Your task to perform on an android device: Open the phone app and click the voicemail tab. Image 0: 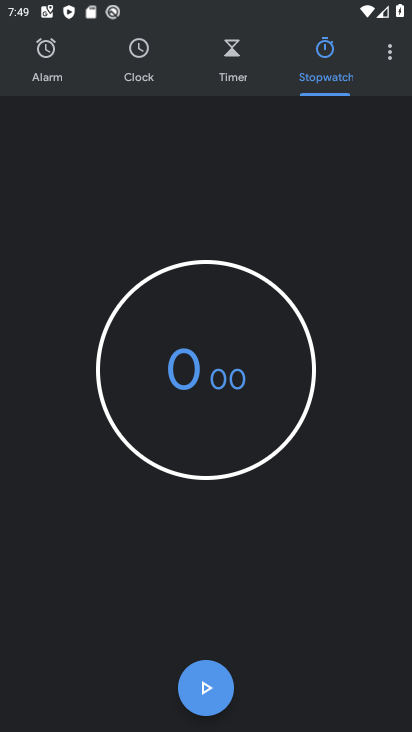
Step 0: press home button
Your task to perform on an android device: Open the phone app and click the voicemail tab. Image 1: 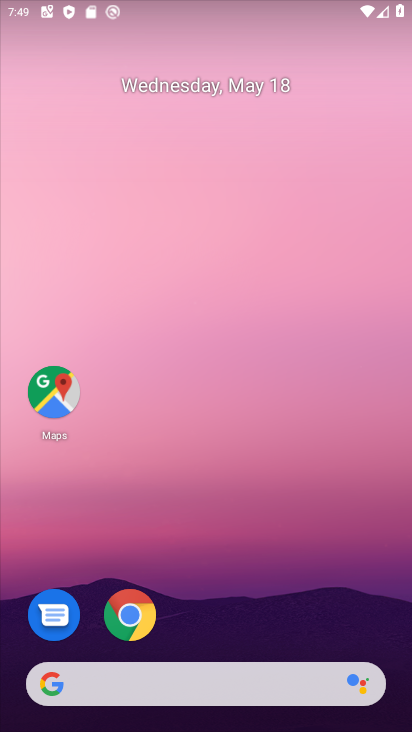
Step 1: drag from (297, 632) to (312, 107)
Your task to perform on an android device: Open the phone app and click the voicemail tab. Image 2: 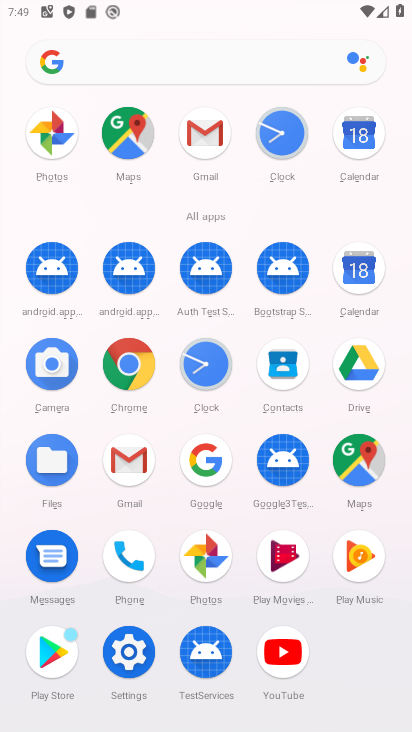
Step 2: click (123, 565)
Your task to perform on an android device: Open the phone app and click the voicemail tab. Image 3: 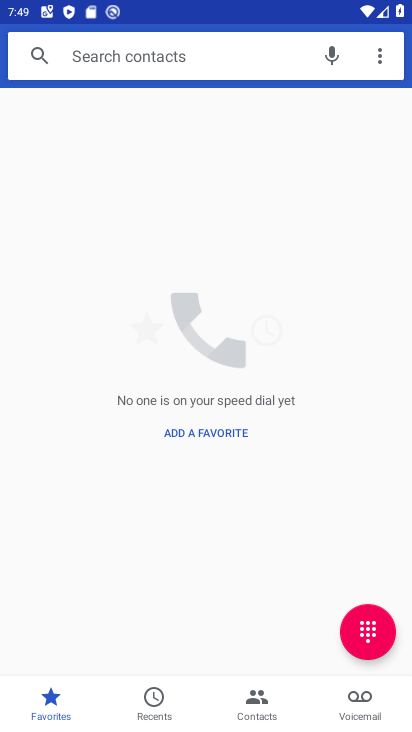
Step 3: click (350, 706)
Your task to perform on an android device: Open the phone app and click the voicemail tab. Image 4: 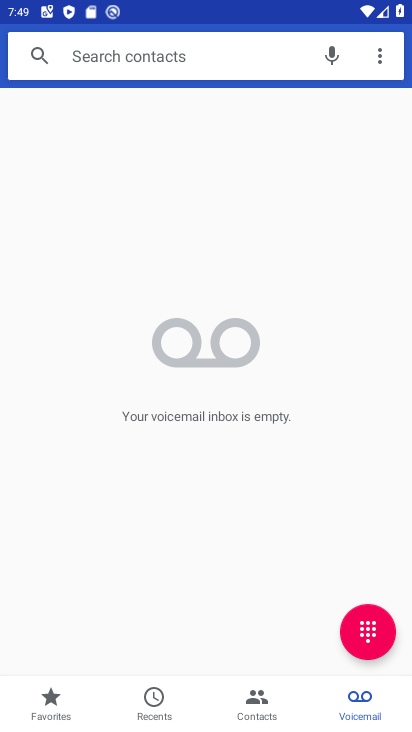
Step 4: task complete